Your task to perform on an android device: Open CNN.com Image 0: 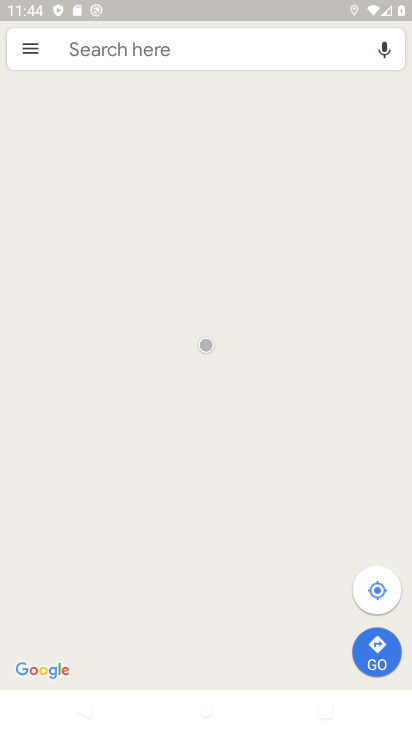
Step 0: click (201, 55)
Your task to perform on an android device: Open CNN.com Image 1: 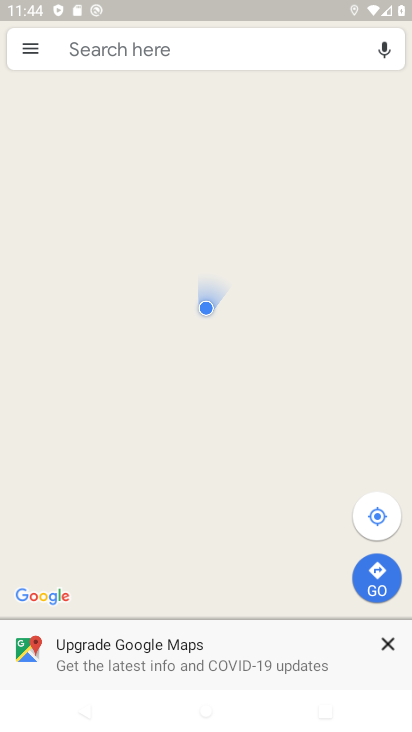
Step 1: click (277, 48)
Your task to perform on an android device: Open CNN.com Image 2: 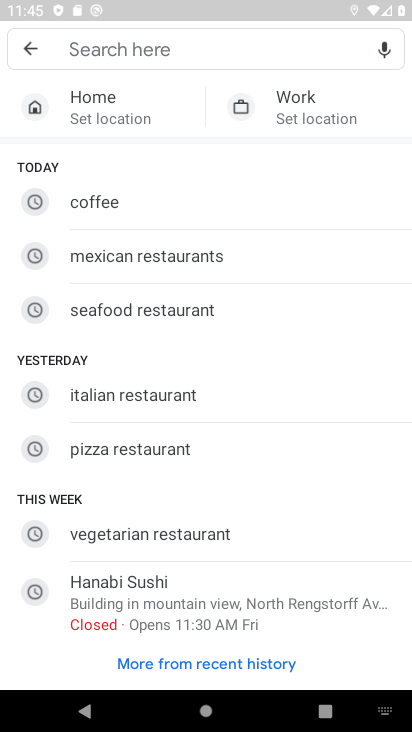
Step 2: type "cnn.com"
Your task to perform on an android device: Open CNN.com Image 3: 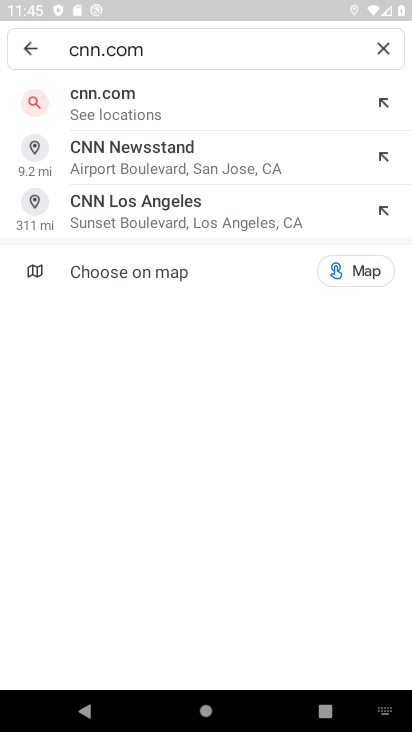
Step 3: click (153, 104)
Your task to perform on an android device: Open CNN.com Image 4: 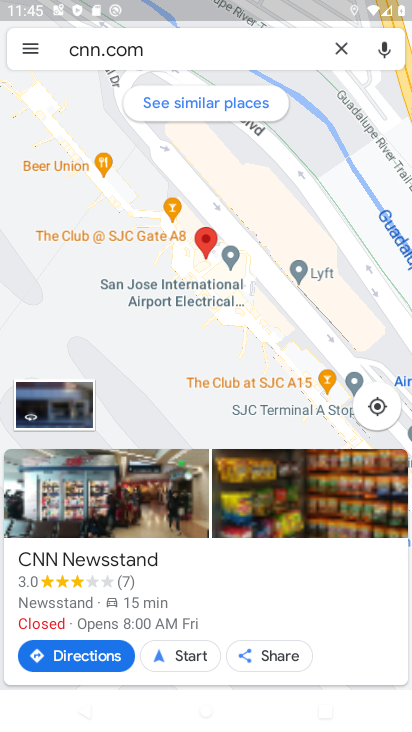
Step 4: task complete